Your task to perform on an android device: Search for seafood restaurants on Google Maps Image 0: 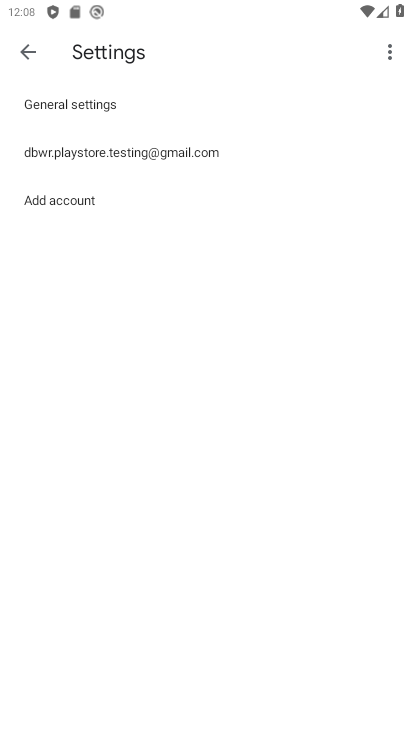
Step 0: press home button
Your task to perform on an android device: Search for seafood restaurants on Google Maps Image 1: 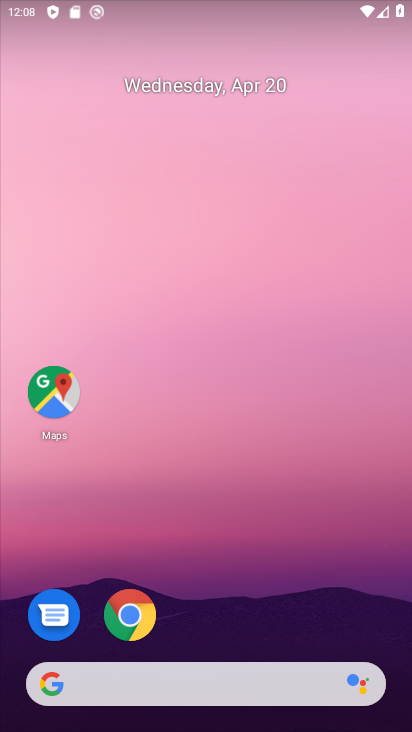
Step 1: click (49, 400)
Your task to perform on an android device: Search for seafood restaurants on Google Maps Image 2: 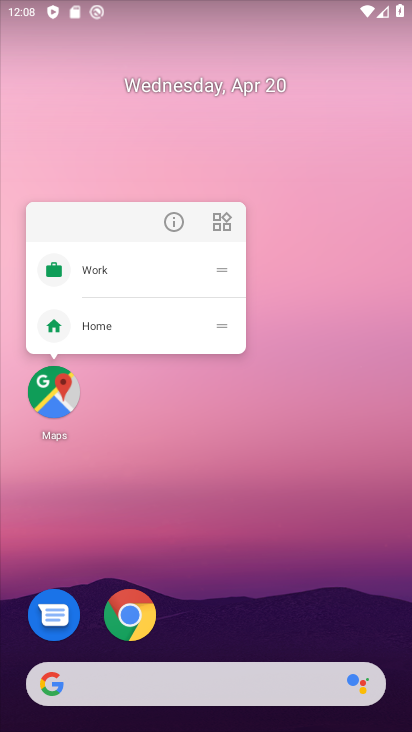
Step 2: click (49, 400)
Your task to perform on an android device: Search for seafood restaurants on Google Maps Image 3: 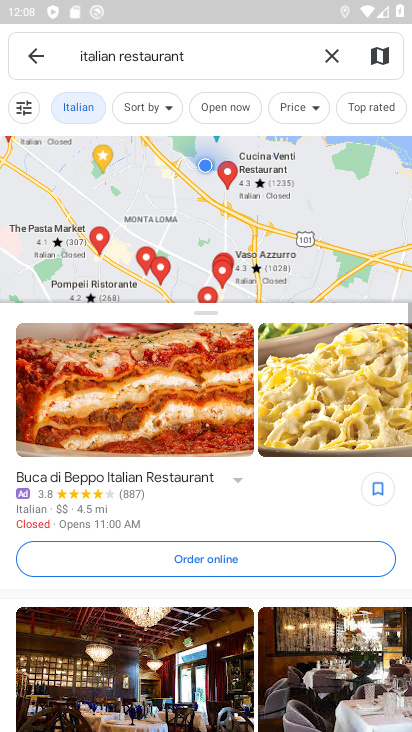
Step 3: click (324, 54)
Your task to perform on an android device: Search for seafood restaurants on Google Maps Image 4: 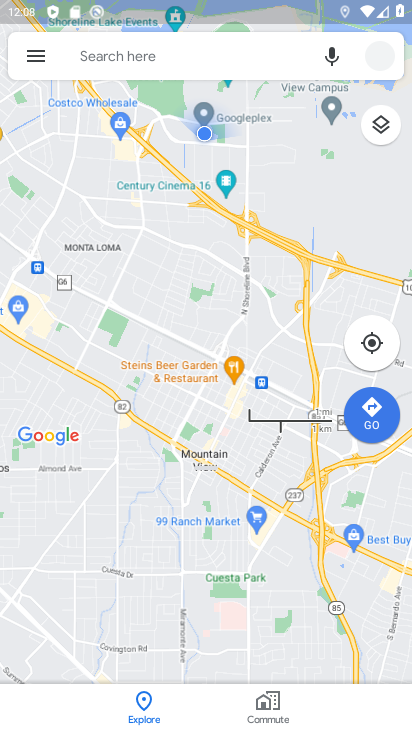
Step 4: click (179, 59)
Your task to perform on an android device: Search for seafood restaurants on Google Maps Image 5: 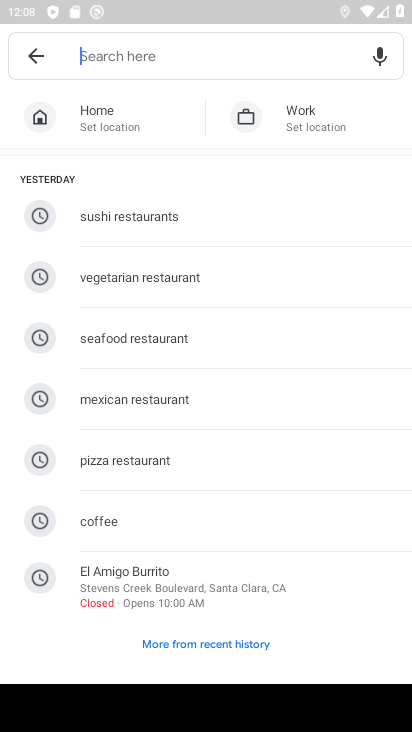
Step 5: click (136, 339)
Your task to perform on an android device: Search for seafood restaurants on Google Maps Image 6: 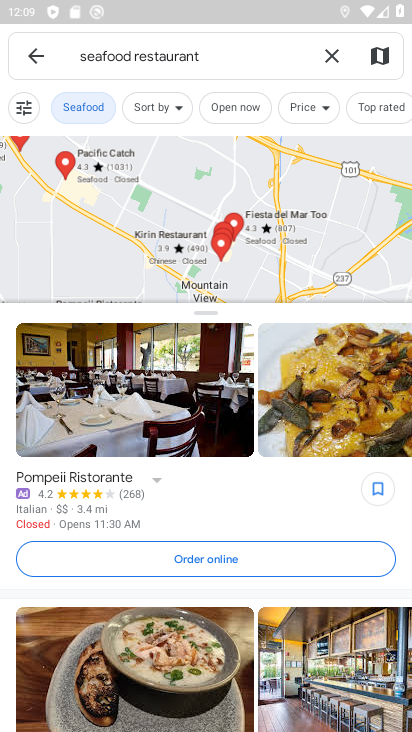
Step 6: task complete